Your task to perform on an android device: Show the shopping cart on costco.com. Image 0: 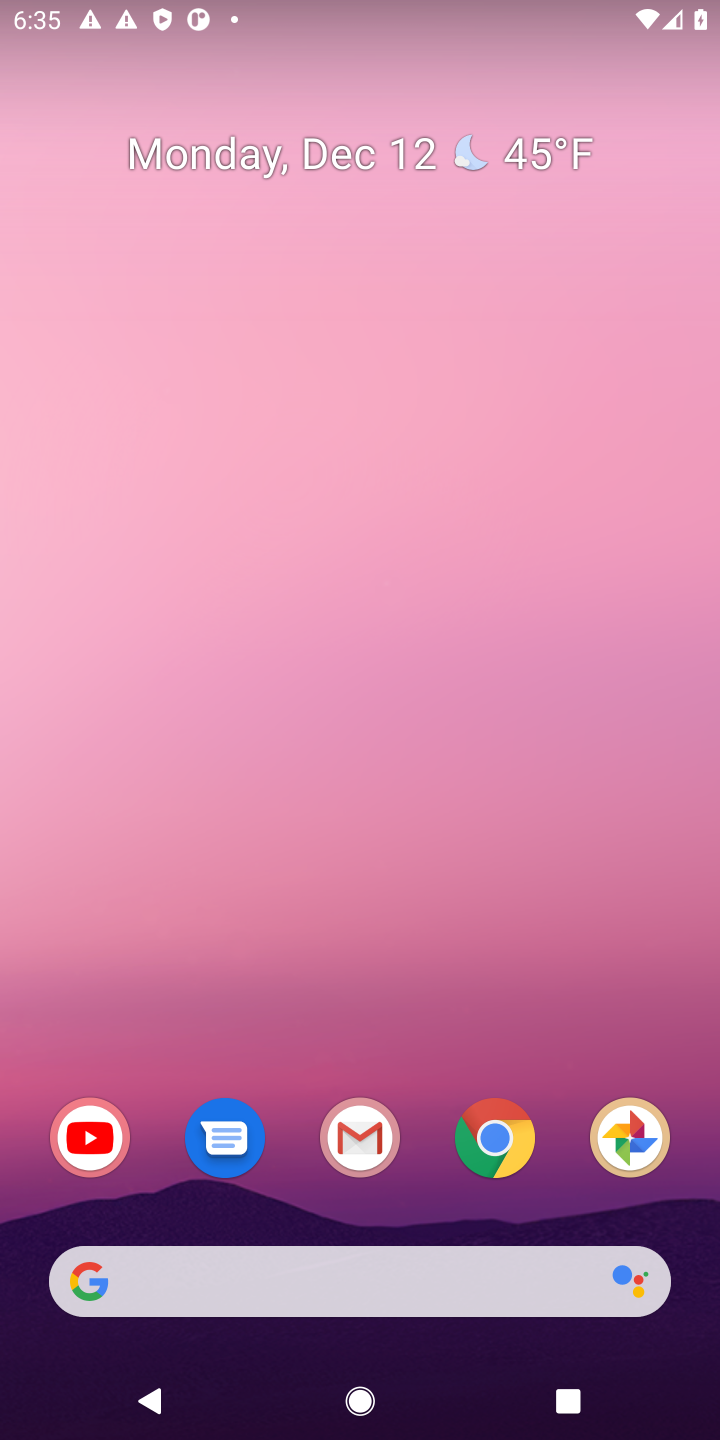
Step 0: click (355, 1271)
Your task to perform on an android device: Show the shopping cart on costco.com. Image 1: 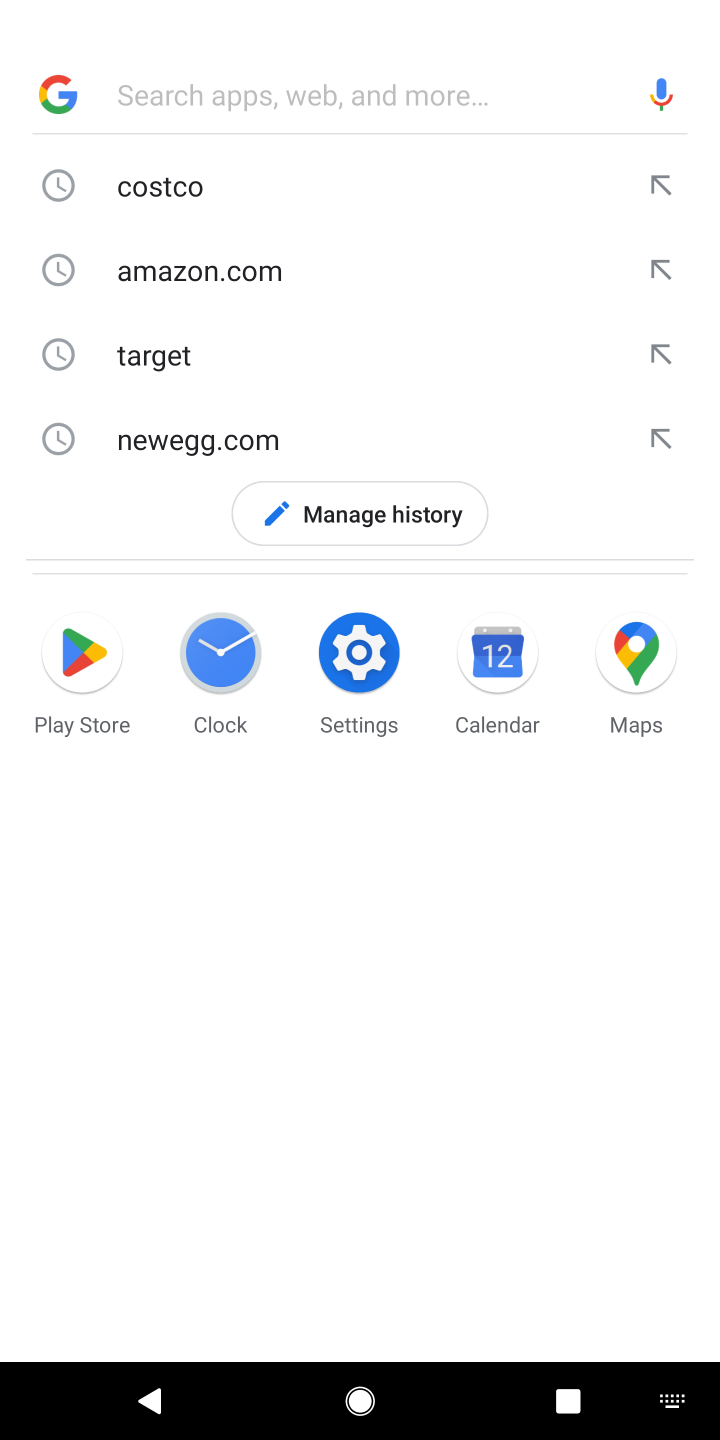
Step 1: click (174, 182)
Your task to perform on an android device: Show the shopping cart on costco.com. Image 2: 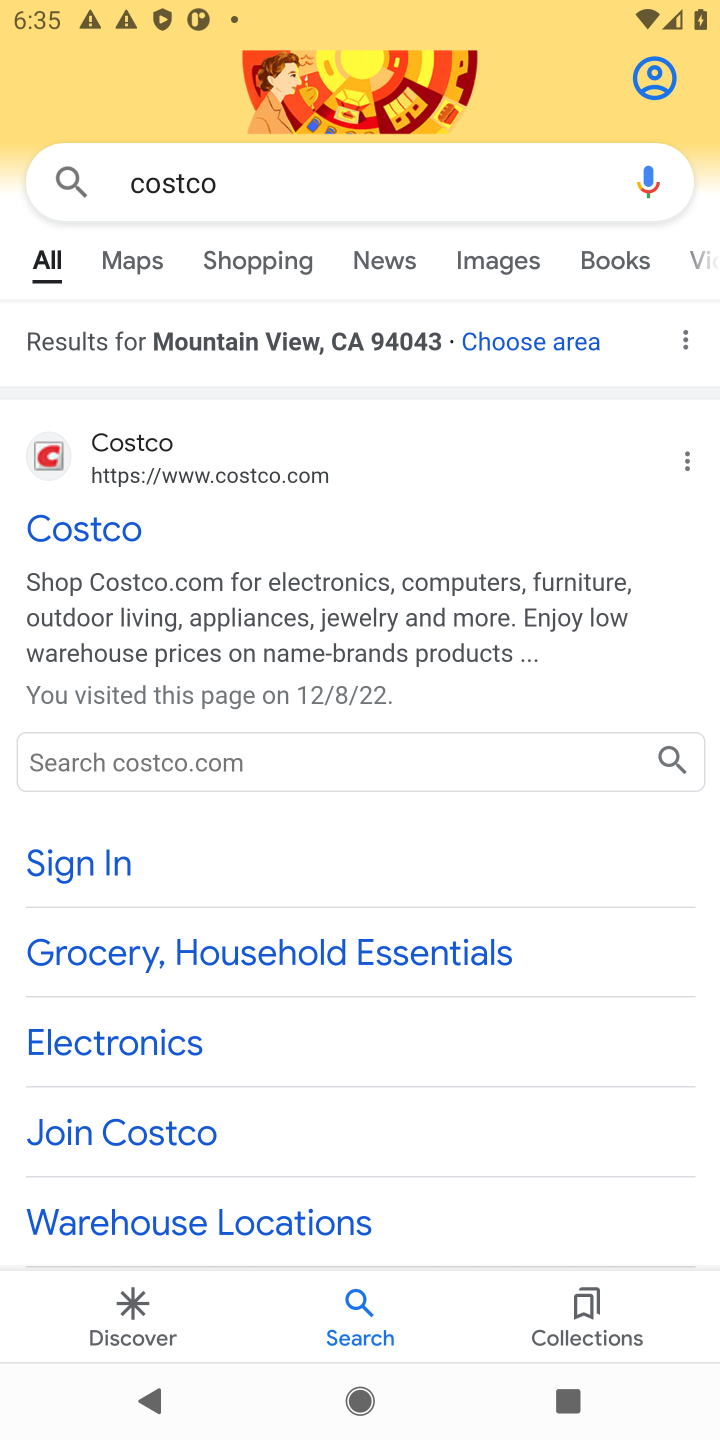
Step 2: click (77, 521)
Your task to perform on an android device: Show the shopping cart on costco.com. Image 3: 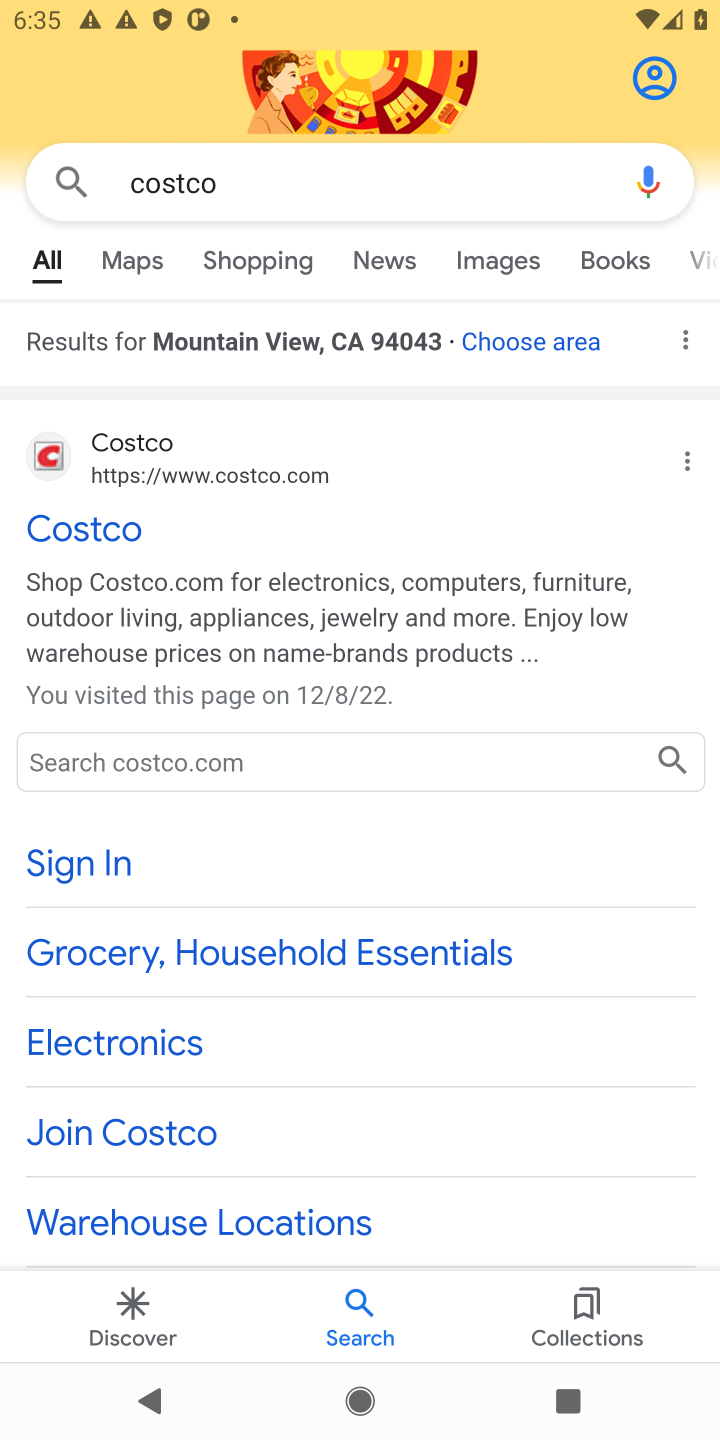
Step 3: click (131, 449)
Your task to perform on an android device: Show the shopping cart on costco.com. Image 4: 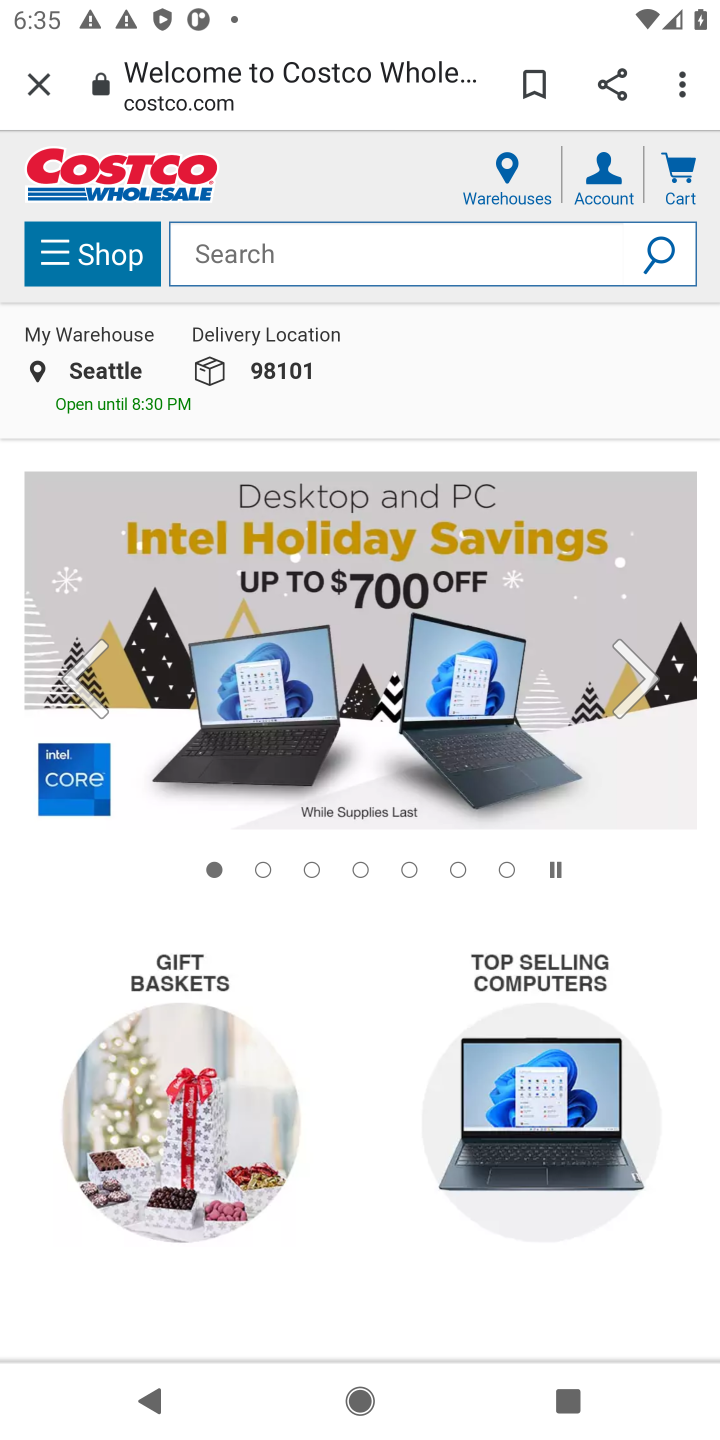
Step 4: click (677, 168)
Your task to perform on an android device: Show the shopping cart on costco.com. Image 5: 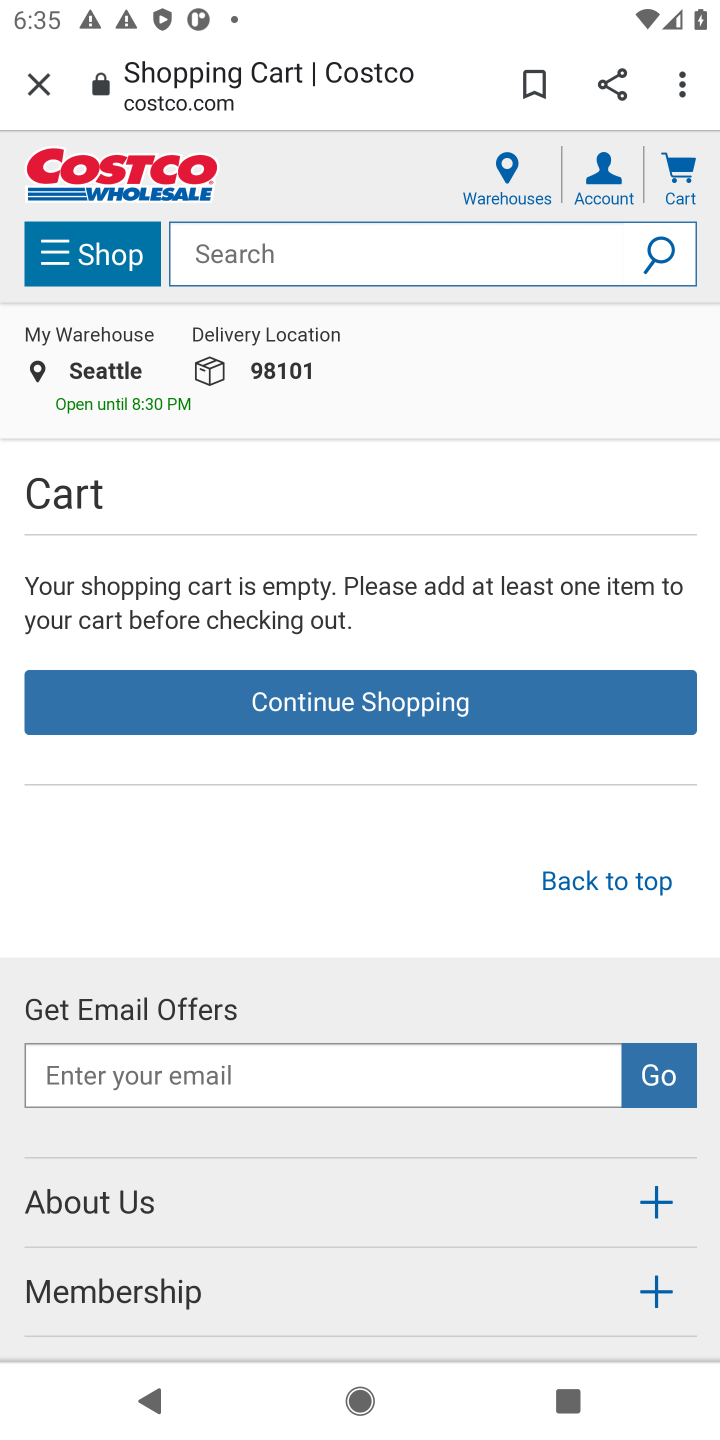
Step 5: task complete